Your task to perform on an android device: Go to Yahoo.com Image 0: 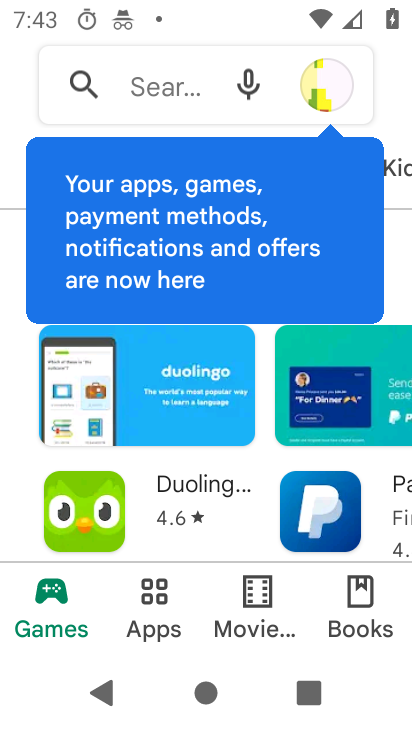
Step 0: press home button
Your task to perform on an android device: Go to Yahoo.com Image 1: 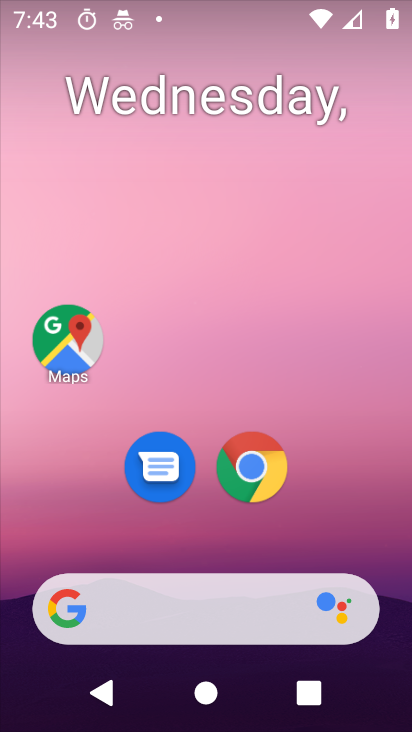
Step 1: click (258, 458)
Your task to perform on an android device: Go to Yahoo.com Image 2: 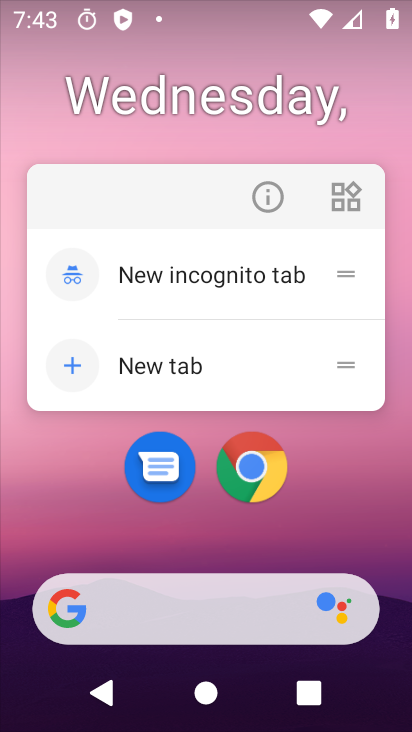
Step 2: click (247, 461)
Your task to perform on an android device: Go to Yahoo.com Image 3: 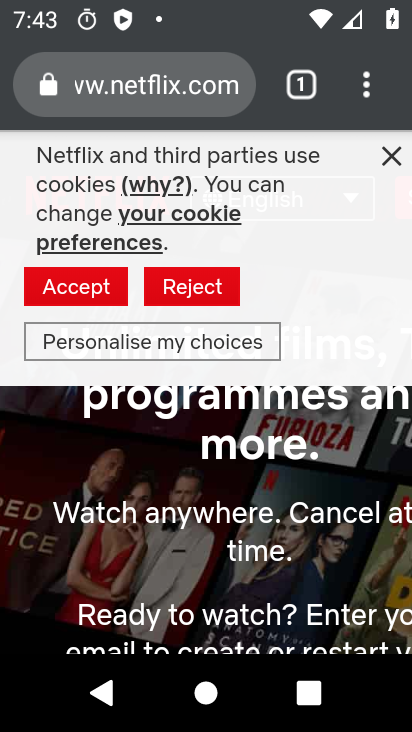
Step 3: click (386, 156)
Your task to perform on an android device: Go to Yahoo.com Image 4: 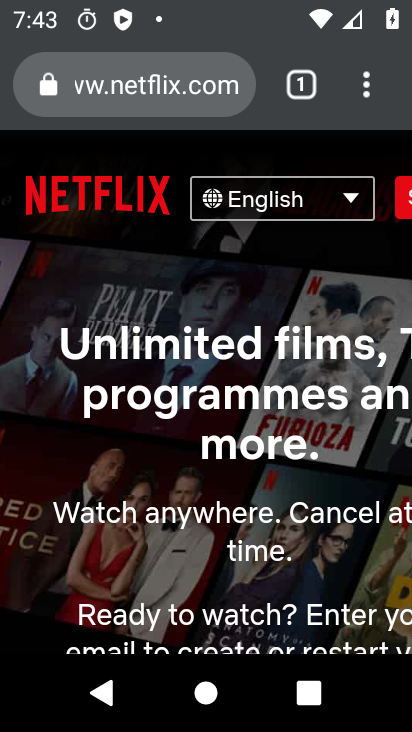
Step 4: click (254, 77)
Your task to perform on an android device: Go to Yahoo.com Image 5: 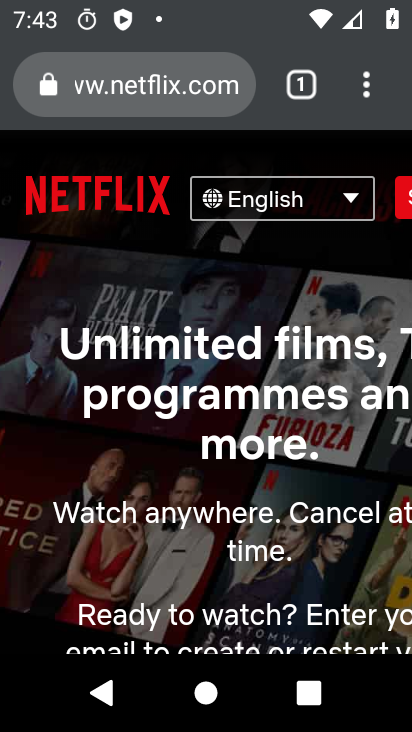
Step 5: click (239, 84)
Your task to perform on an android device: Go to Yahoo.com Image 6: 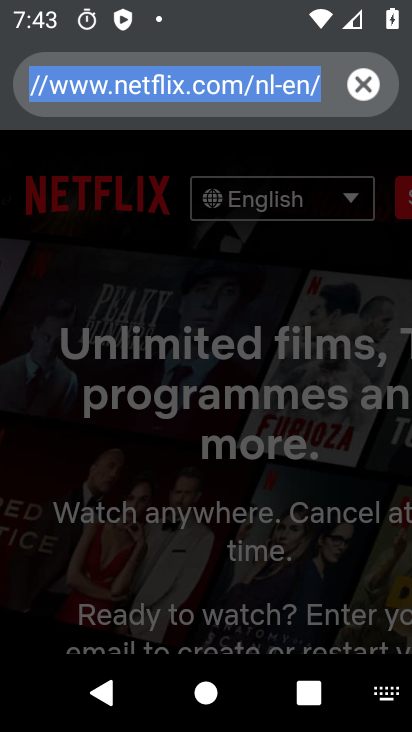
Step 6: click (367, 77)
Your task to perform on an android device: Go to Yahoo.com Image 7: 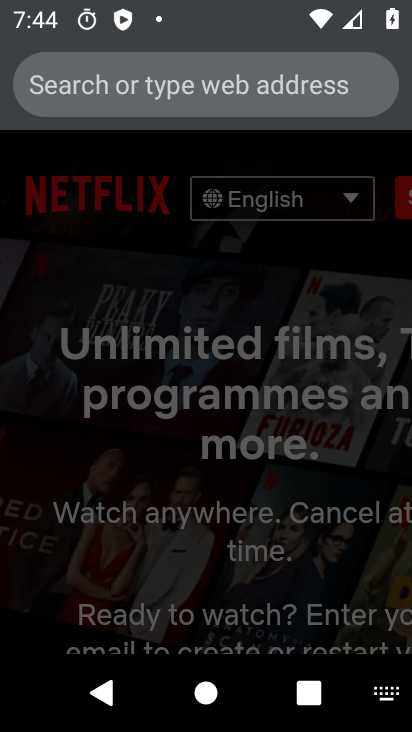
Step 7: type "Yahoo.com"
Your task to perform on an android device: Go to Yahoo.com Image 8: 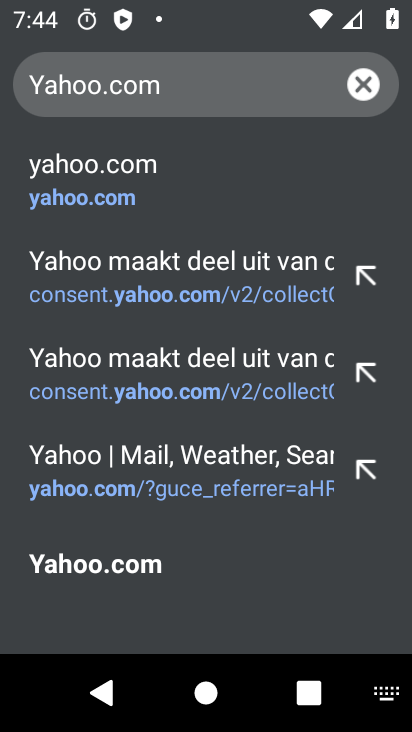
Step 8: click (77, 172)
Your task to perform on an android device: Go to Yahoo.com Image 9: 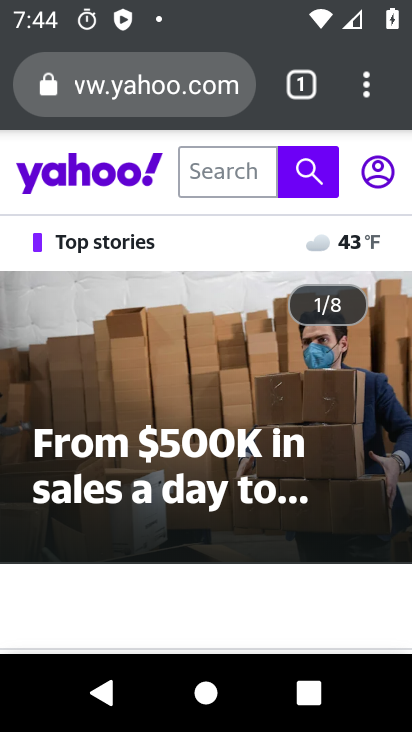
Step 9: task complete